Your task to perform on an android device: Search for Mexican restaurants on Maps Image 0: 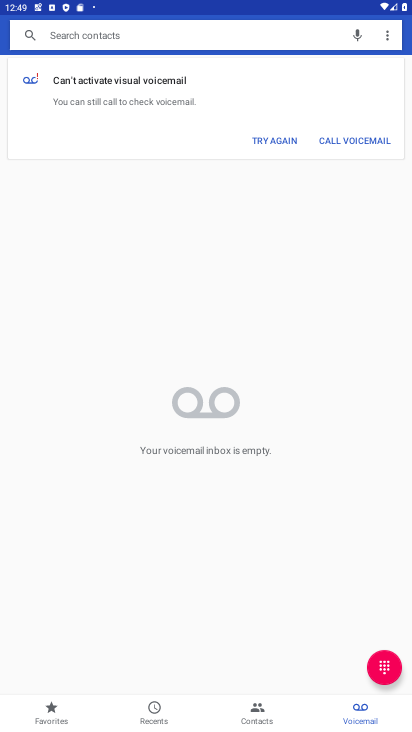
Step 0: press home button
Your task to perform on an android device: Search for Mexican restaurants on Maps Image 1: 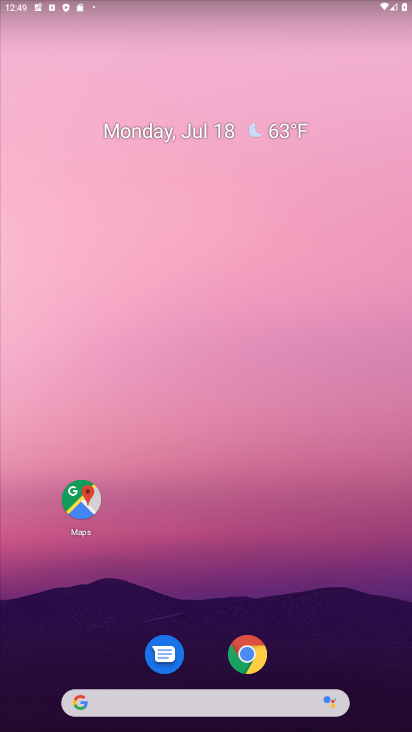
Step 1: click (88, 497)
Your task to perform on an android device: Search for Mexican restaurants on Maps Image 2: 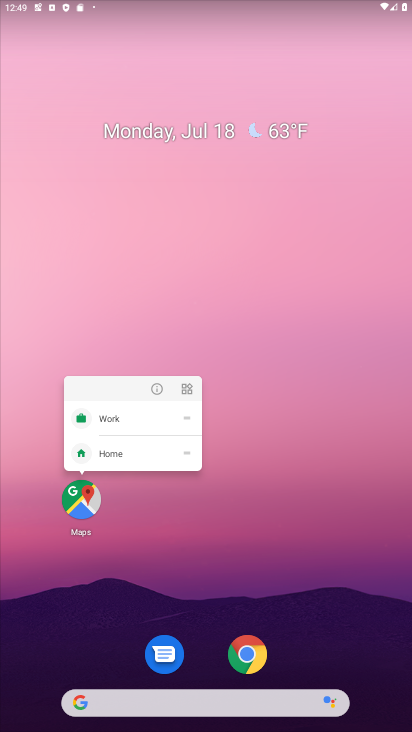
Step 2: click (88, 497)
Your task to perform on an android device: Search for Mexican restaurants on Maps Image 3: 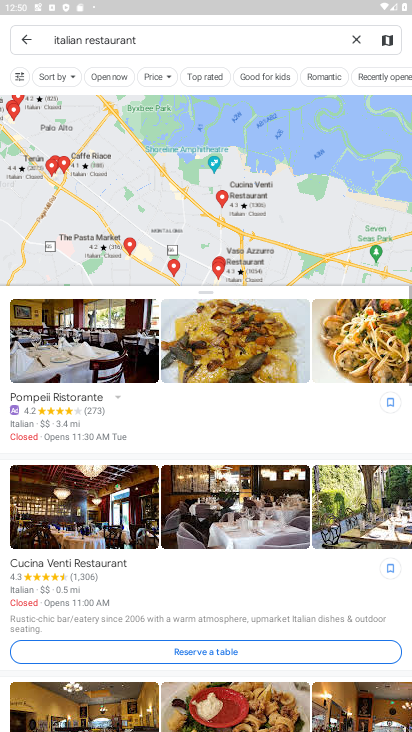
Step 3: click (364, 40)
Your task to perform on an android device: Search for Mexican restaurants on Maps Image 4: 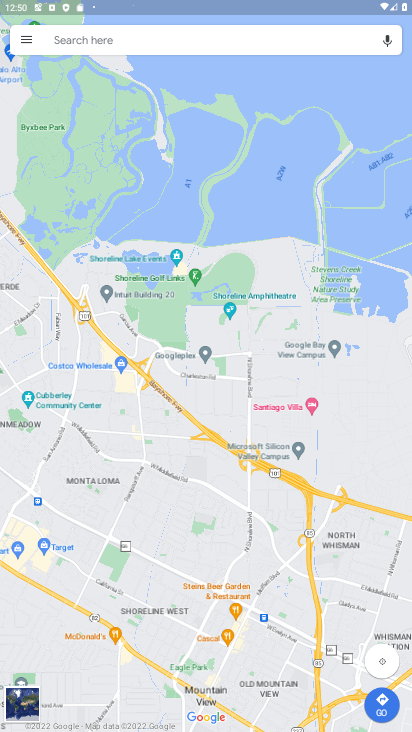
Step 4: click (312, 35)
Your task to perform on an android device: Search for Mexican restaurants on Maps Image 5: 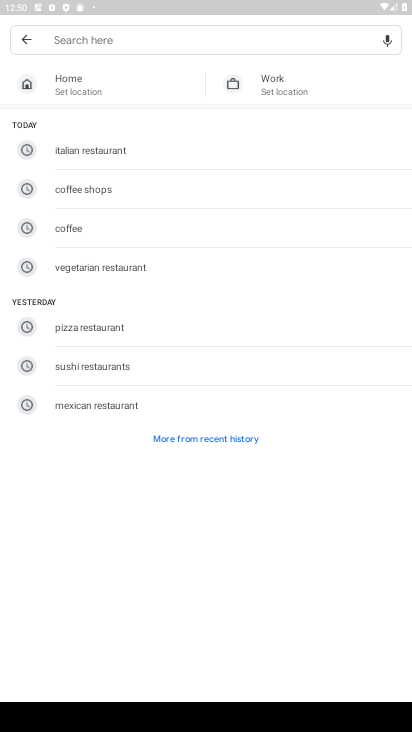
Step 5: type "Mexican restaurants"
Your task to perform on an android device: Search for Mexican restaurants on Maps Image 6: 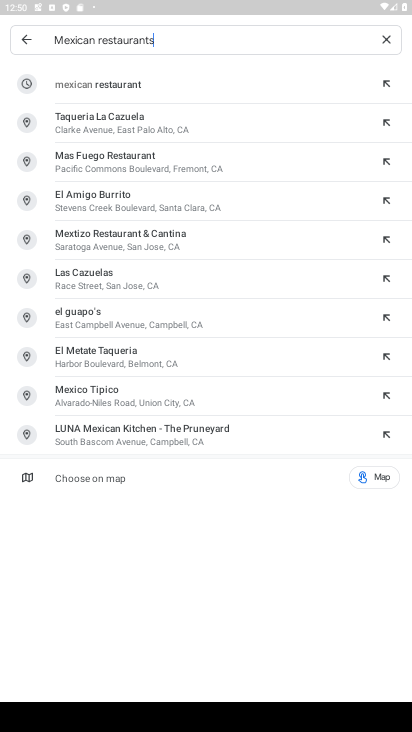
Step 6: click (104, 83)
Your task to perform on an android device: Search for Mexican restaurants on Maps Image 7: 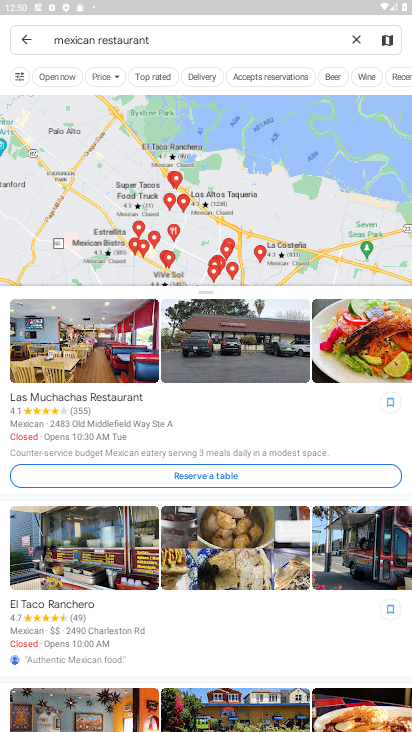
Step 7: task complete